Your task to perform on an android device: toggle priority inbox in the gmail app Image 0: 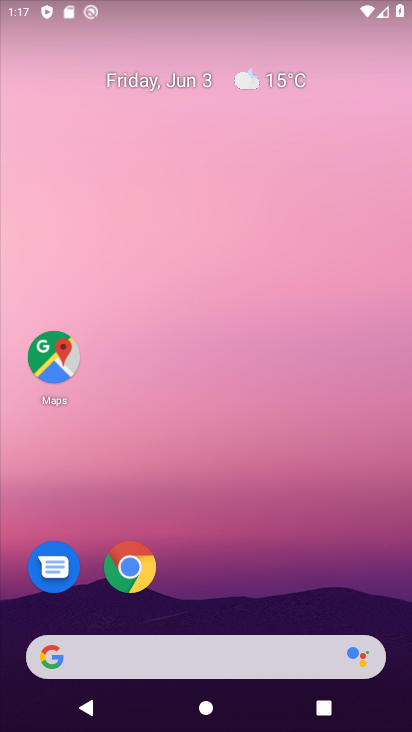
Step 0: drag from (301, 592) to (268, 31)
Your task to perform on an android device: toggle priority inbox in the gmail app Image 1: 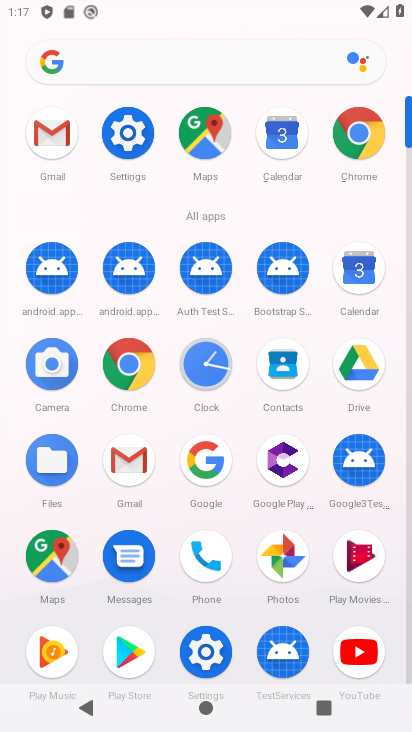
Step 1: click (129, 456)
Your task to perform on an android device: toggle priority inbox in the gmail app Image 2: 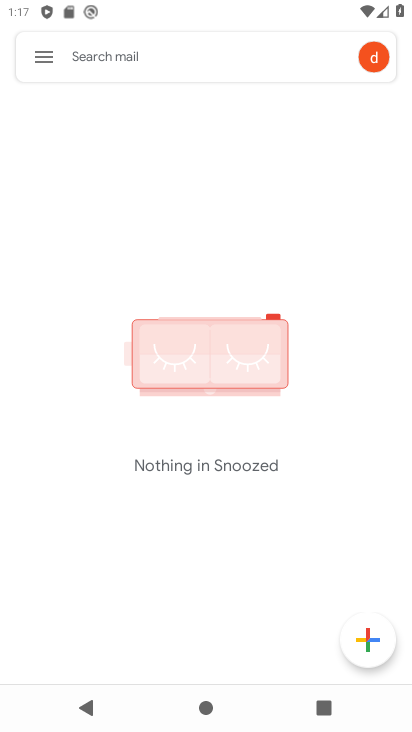
Step 2: click (47, 61)
Your task to perform on an android device: toggle priority inbox in the gmail app Image 3: 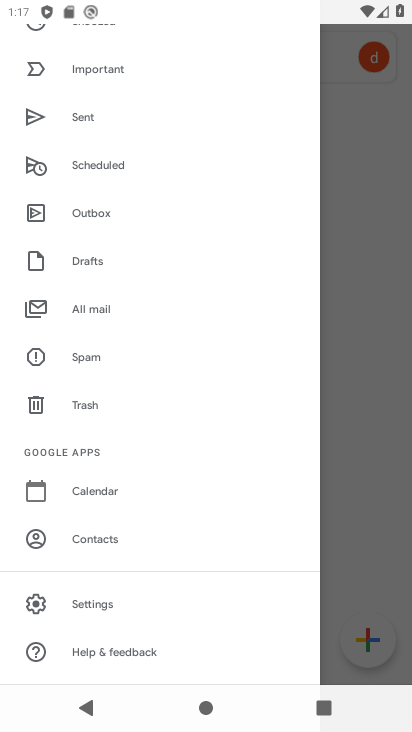
Step 3: click (87, 601)
Your task to perform on an android device: toggle priority inbox in the gmail app Image 4: 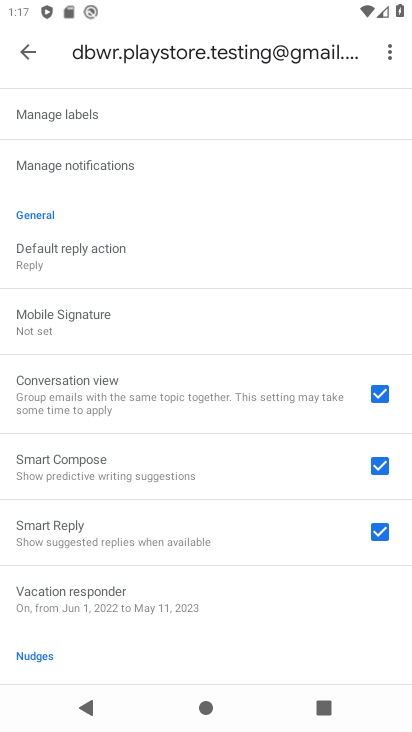
Step 4: drag from (214, 560) to (234, 131)
Your task to perform on an android device: toggle priority inbox in the gmail app Image 5: 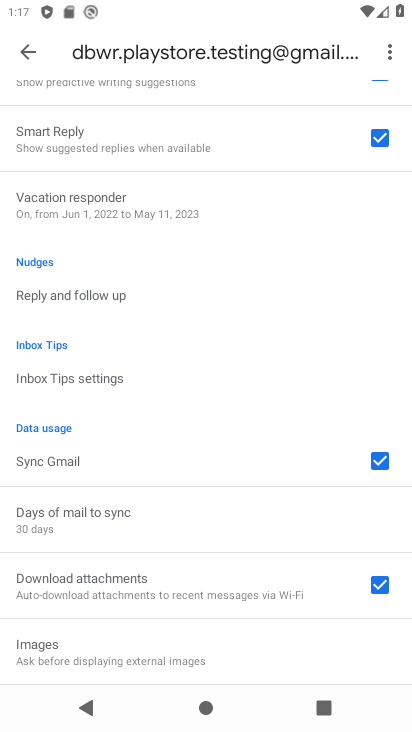
Step 5: drag from (227, 217) to (231, 566)
Your task to perform on an android device: toggle priority inbox in the gmail app Image 6: 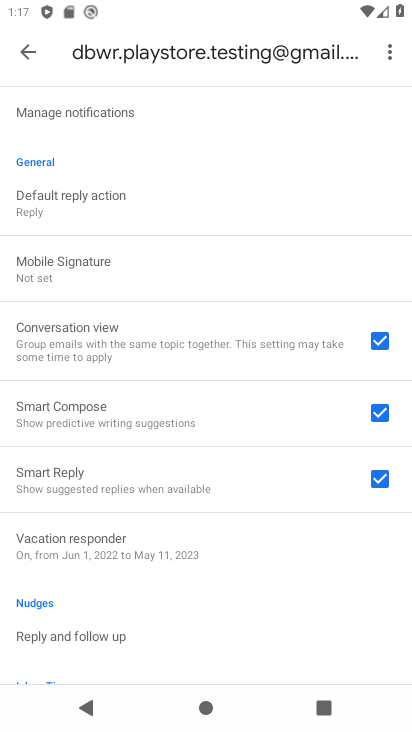
Step 6: drag from (153, 200) to (133, 469)
Your task to perform on an android device: toggle priority inbox in the gmail app Image 7: 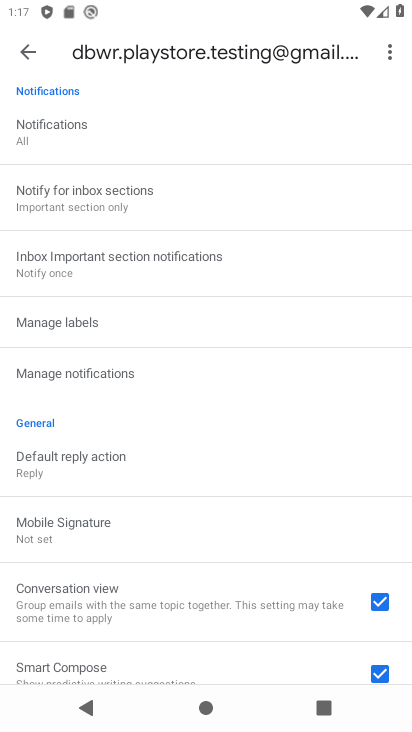
Step 7: drag from (147, 118) to (138, 460)
Your task to perform on an android device: toggle priority inbox in the gmail app Image 8: 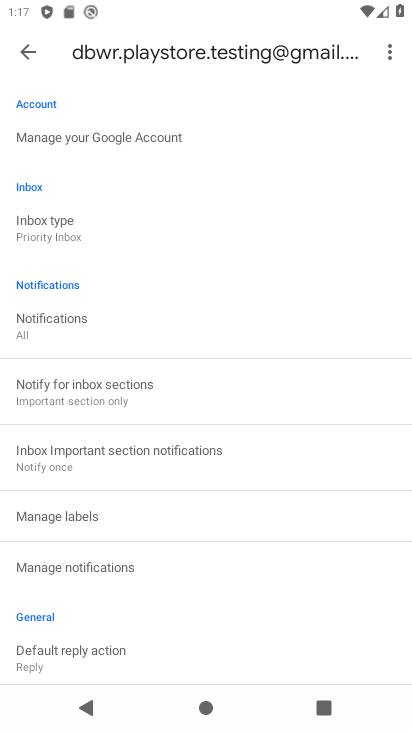
Step 8: click (42, 222)
Your task to perform on an android device: toggle priority inbox in the gmail app Image 9: 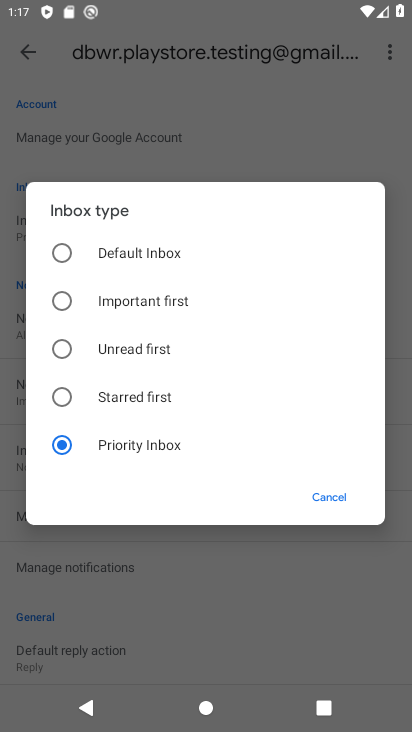
Step 9: click (130, 251)
Your task to perform on an android device: toggle priority inbox in the gmail app Image 10: 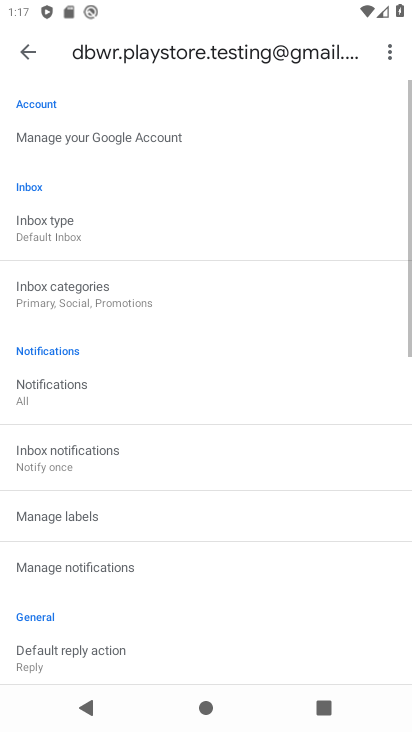
Step 10: task complete